Your task to perform on an android device: turn on sleep mode Image 0: 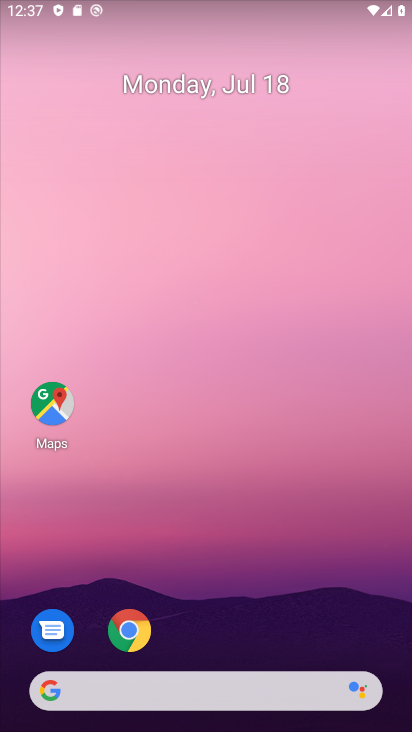
Step 0: drag from (267, 604) to (211, 61)
Your task to perform on an android device: turn on sleep mode Image 1: 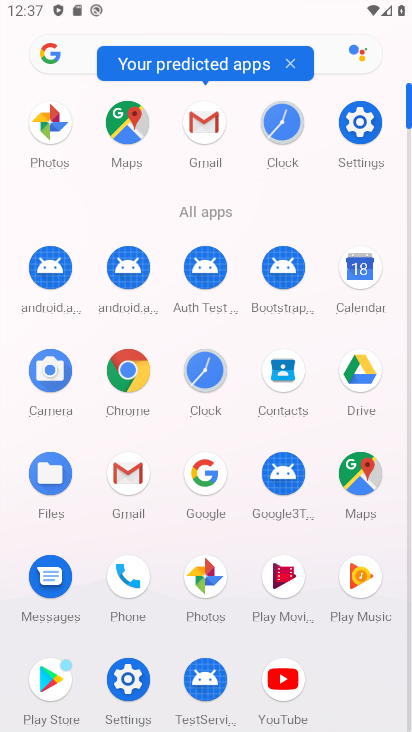
Step 1: click (364, 127)
Your task to perform on an android device: turn on sleep mode Image 2: 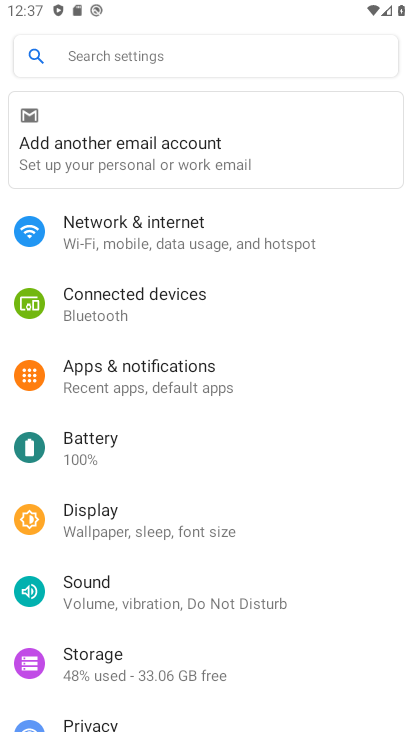
Step 2: click (197, 525)
Your task to perform on an android device: turn on sleep mode Image 3: 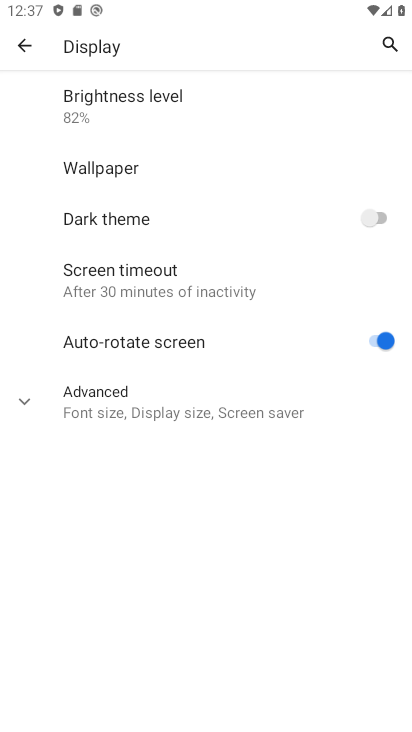
Step 3: click (25, 396)
Your task to perform on an android device: turn on sleep mode Image 4: 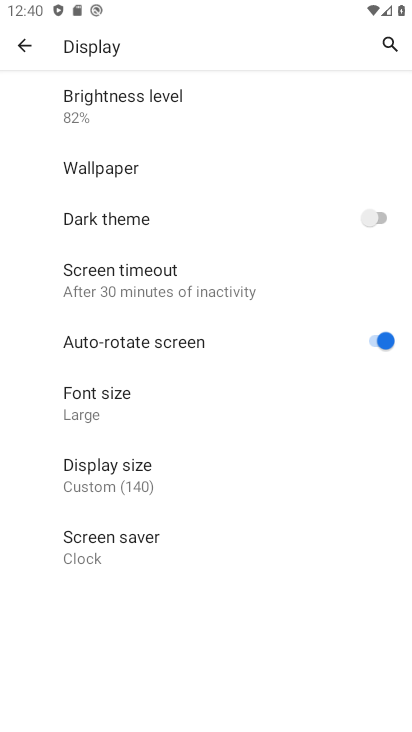
Step 4: task complete